Your task to perform on an android device: Go to Maps Image 0: 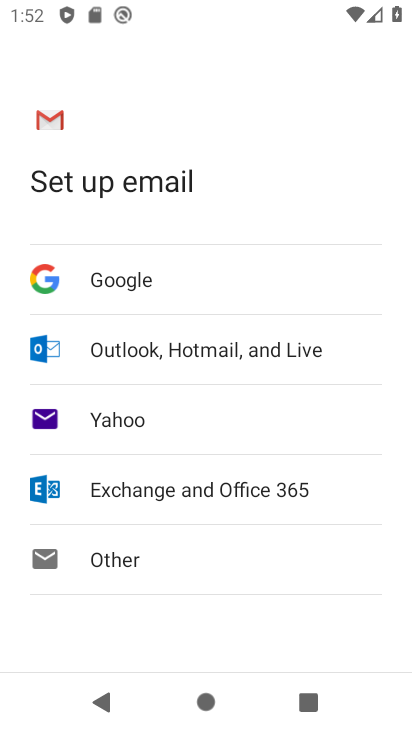
Step 0: press home button
Your task to perform on an android device: Go to Maps Image 1: 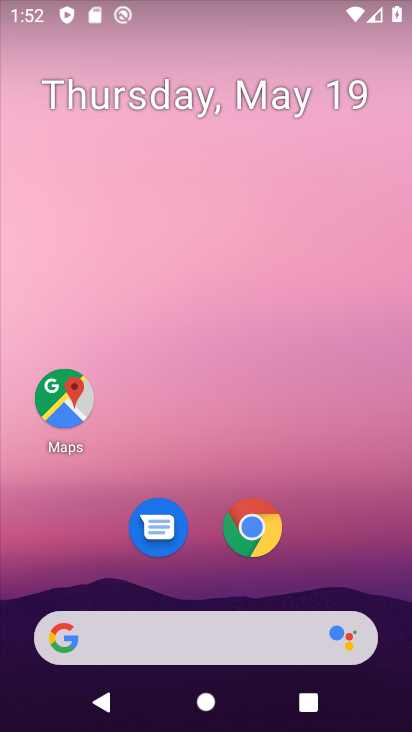
Step 1: click (61, 420)
Your task to perform on an android device: Go to Maps Image 2: 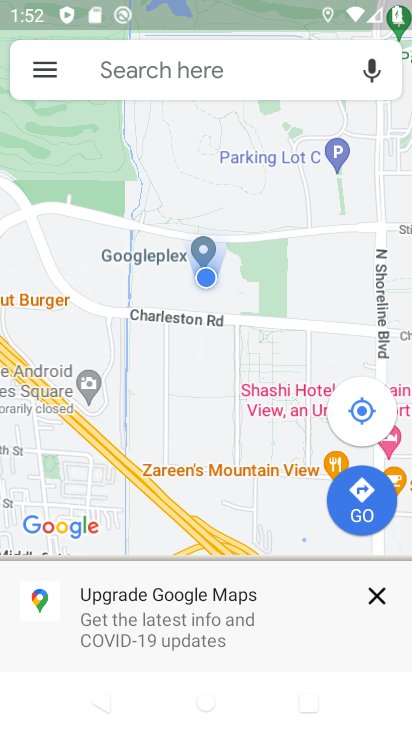
Step 2: task complete